Your task to perform on an android device: change the clock display to analog Image 0: 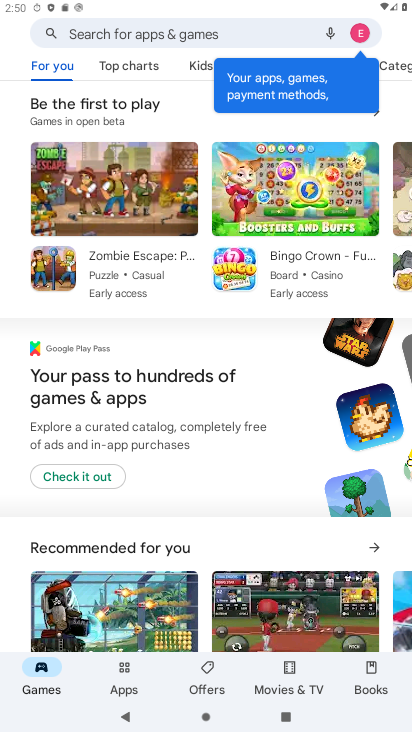
Step 0: press home button
Your task to perform on an android device: change the clock display to analog Image 1: 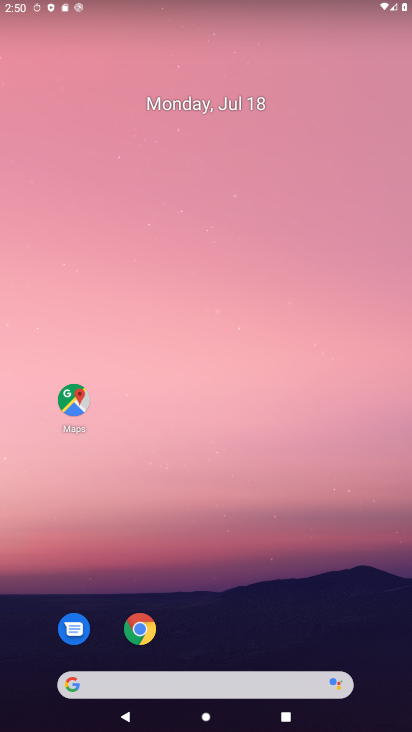
Step 1: drag from (243, 612) to (92, 10)
Your task to perform on an android device: change the clock display to analog Image 2: 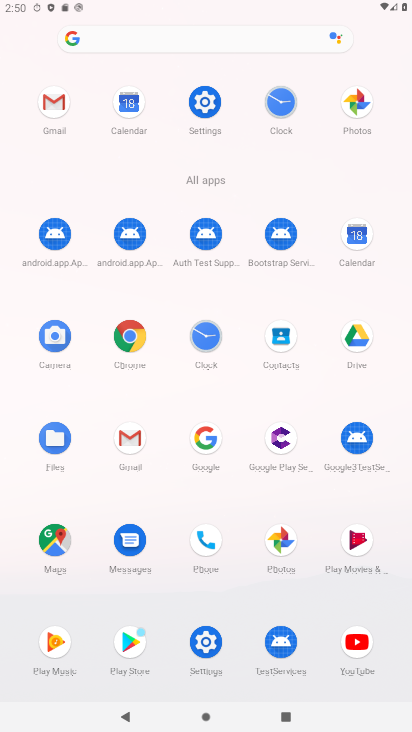
Step 2: click (201, 353)
Your task to perform on an android device: change the clock display to analog Image 3: 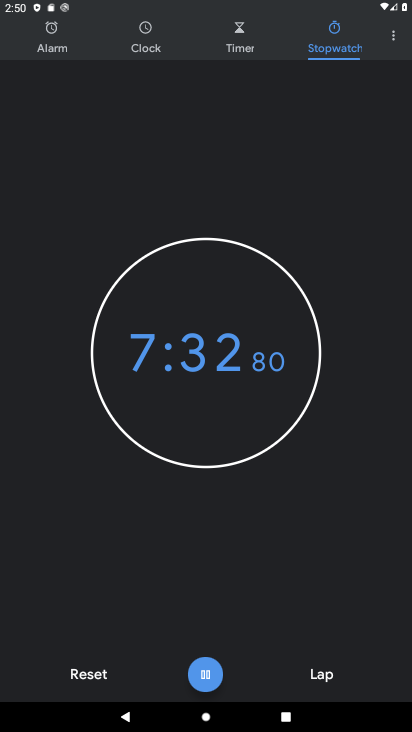
Step 3: click (394, 30)
Your task to perform on an android device: change the clock display to analog Image 4: 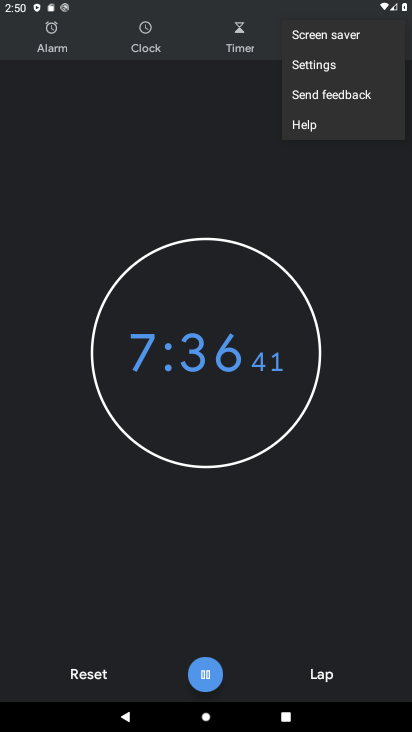
Step 4: click (325, 61)
Your task to perform on an android device: change the clock display to analog Image 5: 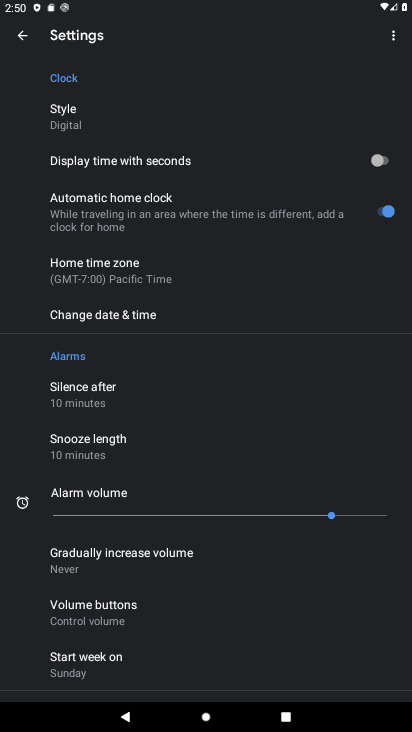
Step 5: click (71, 120)
Your task to perform on an android device: change the clock display to analog Image 6: 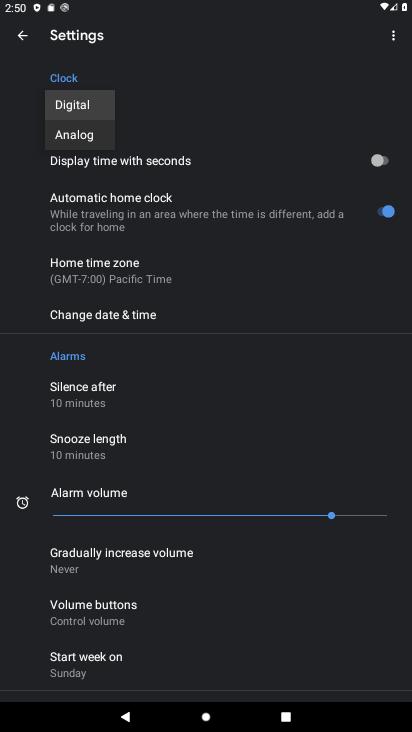
Step 6: click (97, 143)
Your task to perform on an android device: change the clock display to analog Image 7: 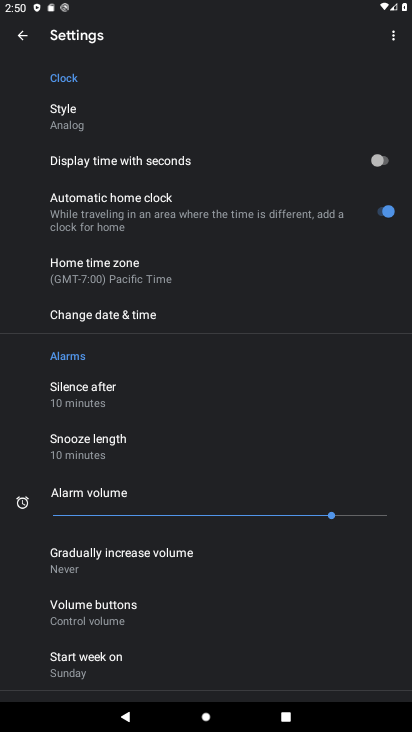
Step 7: task complete